Your task to perform on an android device: Open the calendar app, open the side menu, and click the "Day" option Image 0: 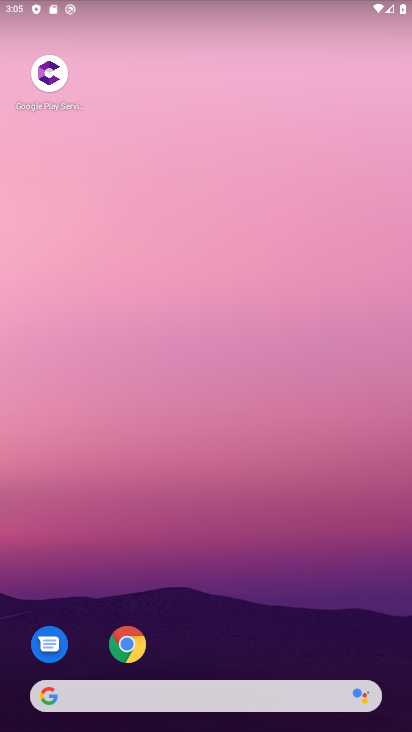
Step 0: click (263, 29)
Your task to perform on an android device: Open the calendar app, open the side menu, and click the "Day" option Image 1: 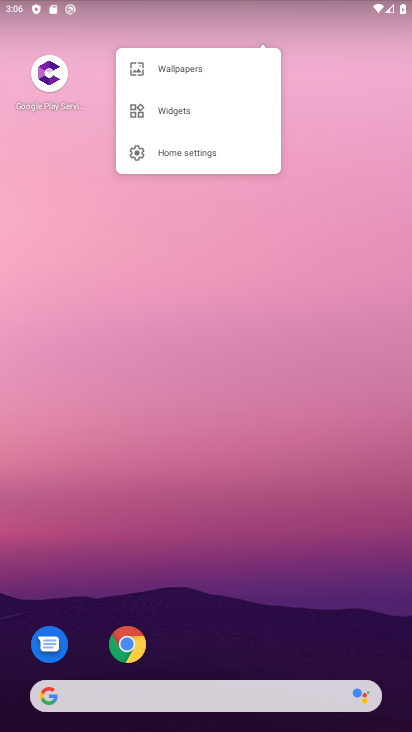
Step 1: drag from (20, 691) to (356, 32)
Your task to perform on an android device: Open the calendar app, open the side menu, and click the "Day" option Image 2: 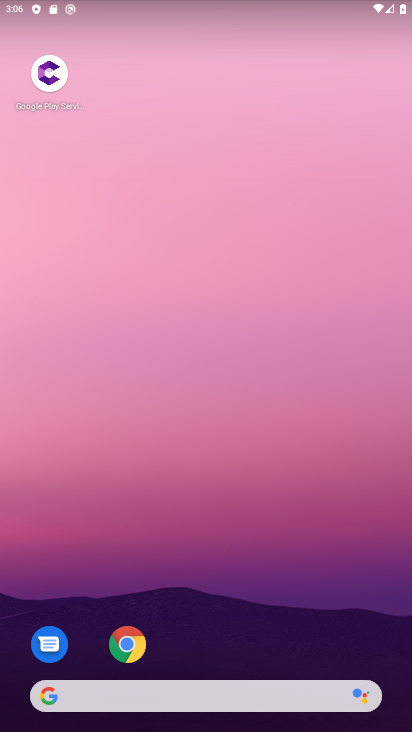
Step 2: drag from (8, 715) to (29, 307)
Your task to perform on an android device: Open the calendar app, open the side menu, and click the "Day" option Image 3: 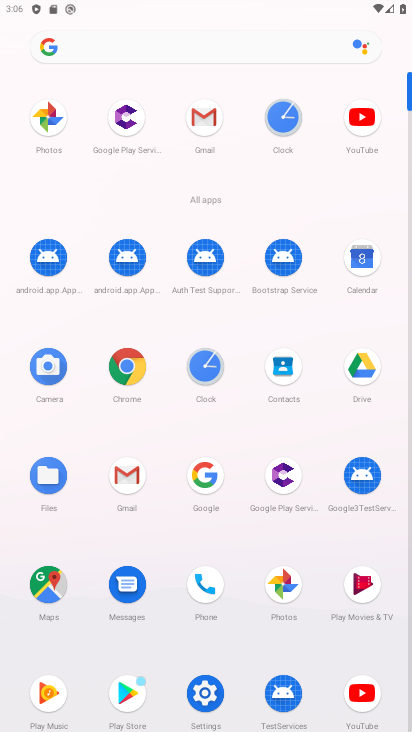
Step 3: click (363, 263)
Your task to perform on an android device: Open the calendar app, open the side menu, and click the "Day" option Image 4: 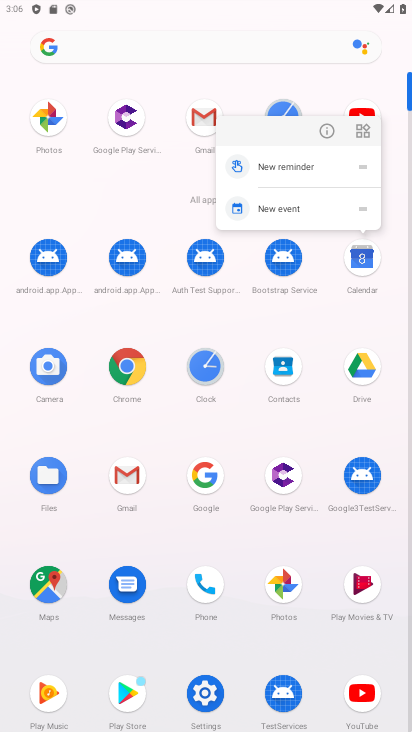
Step 4: click (360, 266)
Your task to perform on an android device: Open the calendar app, open the side menu, and click the "Day" option Image 5: 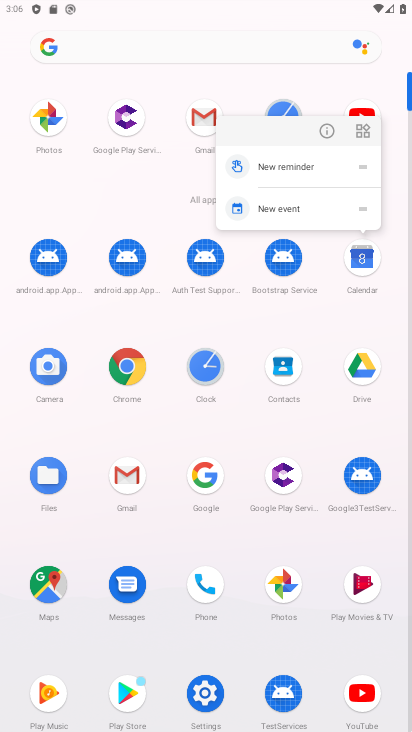
Step 5: click (353, 249)
Your task to perform on an android device: Open the calendar app, open the side menu, and click the "Day" option Image 6: 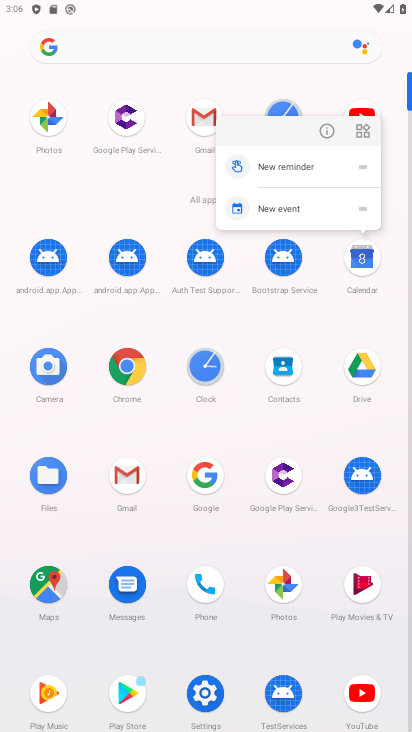
Step 6: click (353, 255)
Your task to perform on an android device: Open the calendar app, open the side menu, and click the "Day" option Image 7: 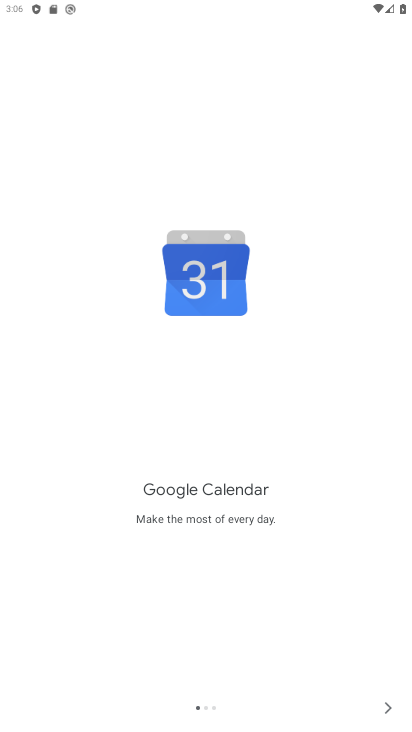
Step 7: click (382, 706)
Your task to perform on an android device: Open the calendar app, open the side menu, and click the "Day" option Image 8: 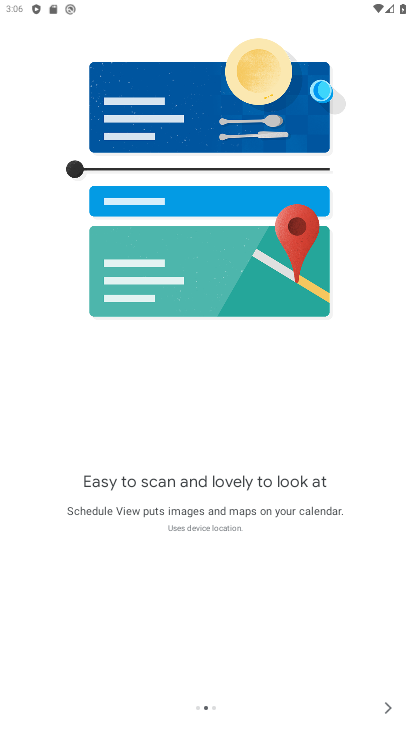
Step 8: click (387, 710)
Your task to perform on an android device: Open the calendar app, open the side menu, and click the "Day" option Image 9: 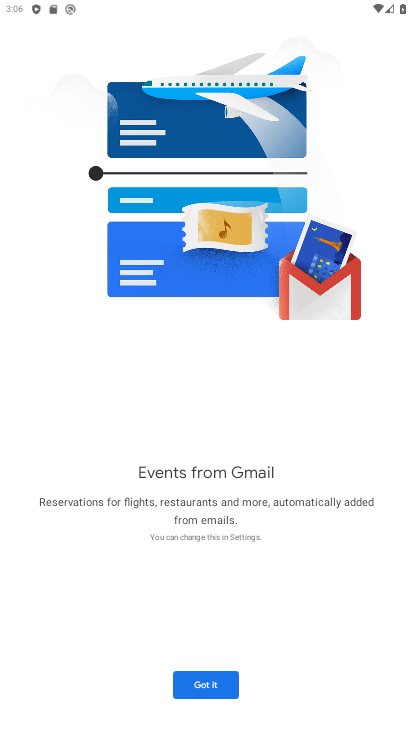
Step 9: click (207, 679)
Your task to perform on an android device: Open the calendar app, open the side menu, and click the "Day" option Image 10: 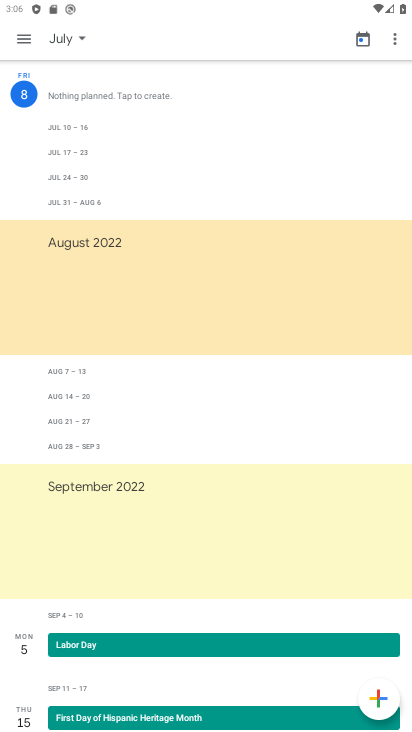
Step 10: click (31, 37)
Your task to perform on an android device: Open the calendar app, open the side menu, and click the "Day" option Image 11: 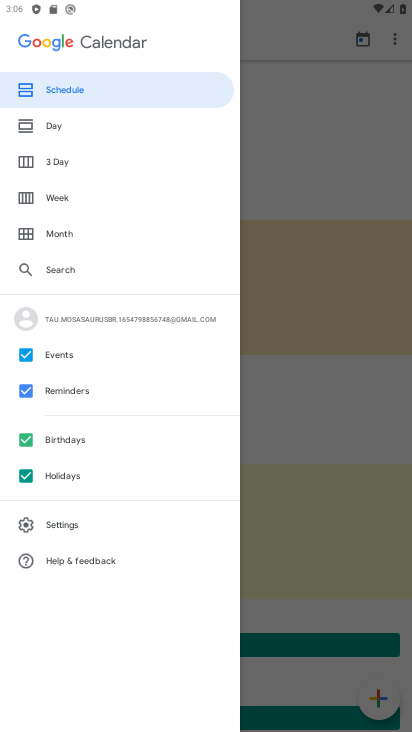
Step 11: click (54, 120)
Your task to perform on an android device: Open the calendar app, open the side menu, and click the "Day" option Image 12: 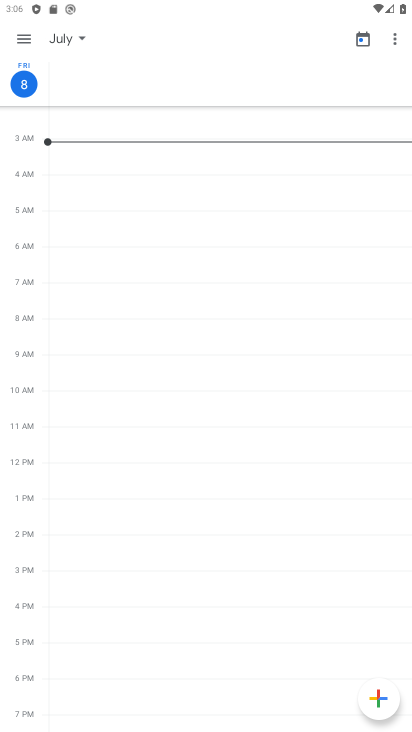
Step 12: task complete